Your task to perform on an android device: move a message to another label in the gmail app Image 0: 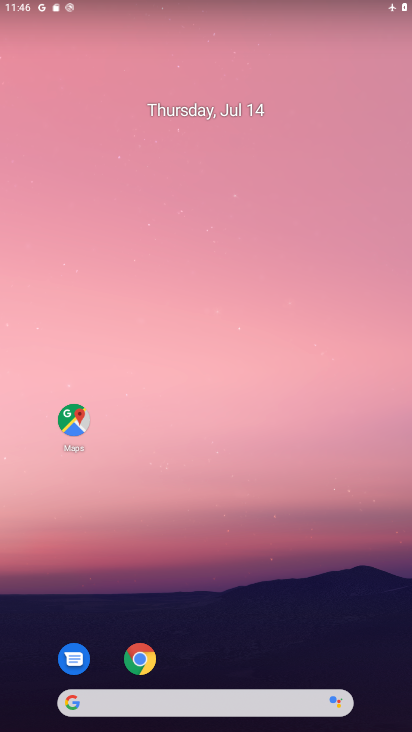
Step 0: drag from (275, 619) to (266, 48)
Your task to perform on an android device: move a message to another label in the gmail app Image 1: 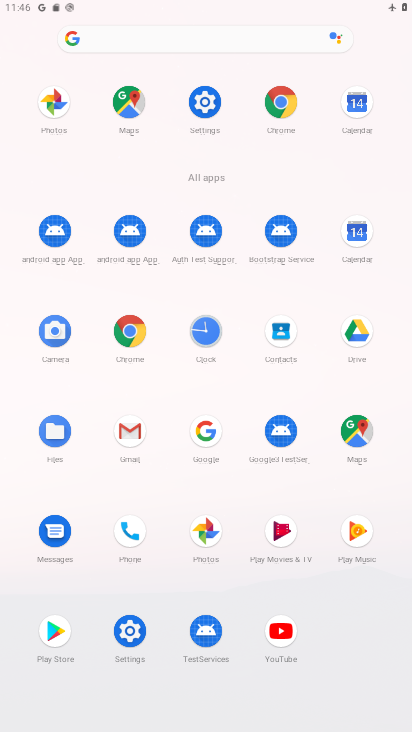
Step 1: click (135, 423)
Your task to perform on an android device: move a message to another label in the gmail app Image 2: 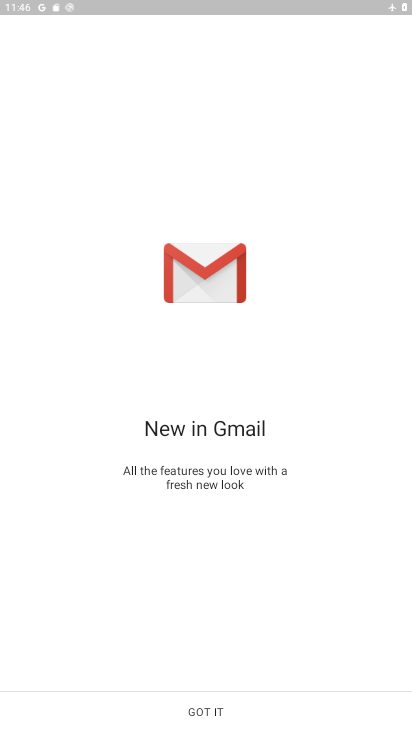
Step 2: click (197, 711)
Your task to perform on an android device: move a message to another label in the gmail app Image 3: 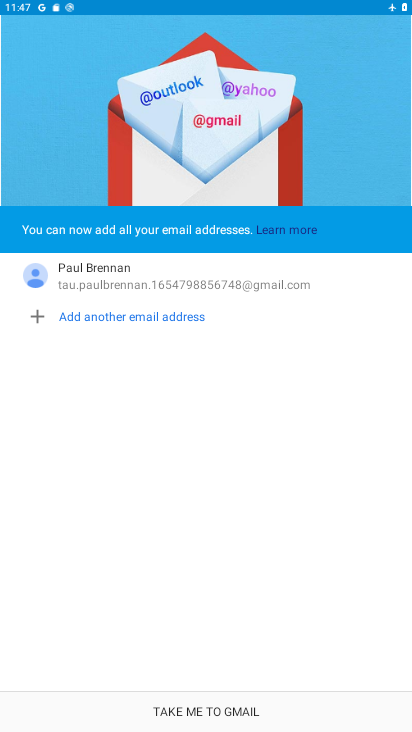
Step 3: click (197, 711)
Your task to perform on an android device: move a message to another label in the gmail app Image 4: 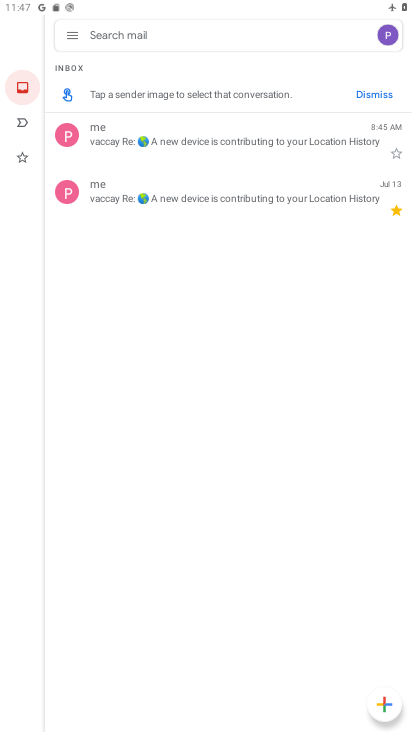
Step 4: click (224, 214)
Your task to perform on an android device: move a message to another label in the gmail app Image 5: 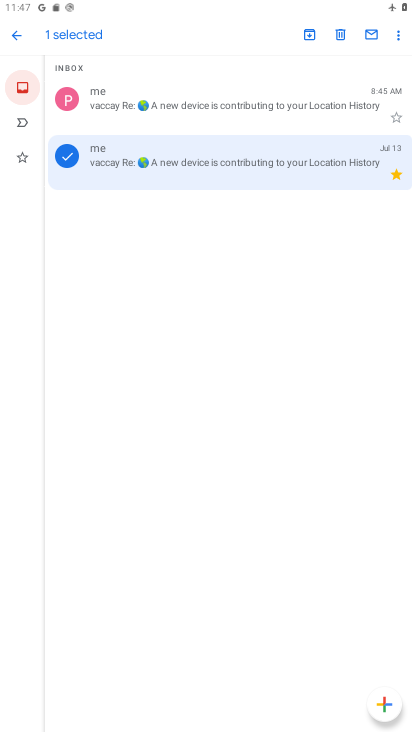
Step 5: click (395, 37)
Your task to perform on an android device: move a message to another label in the gmail app Image 6: 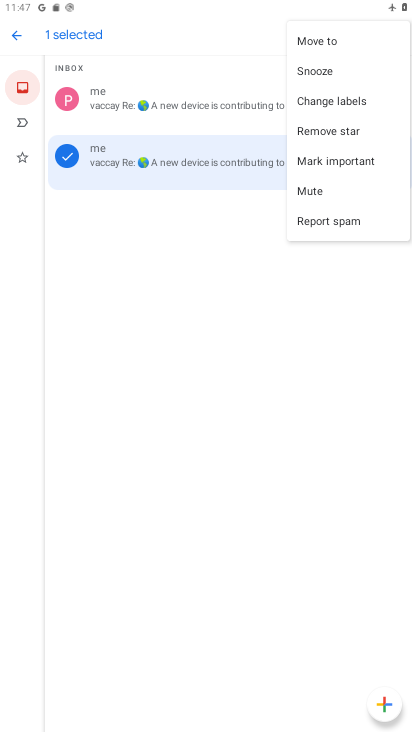
Step 6: click (367, 94)
Your task to perform on an android device: move a message to another label in the gmail app Image 7: 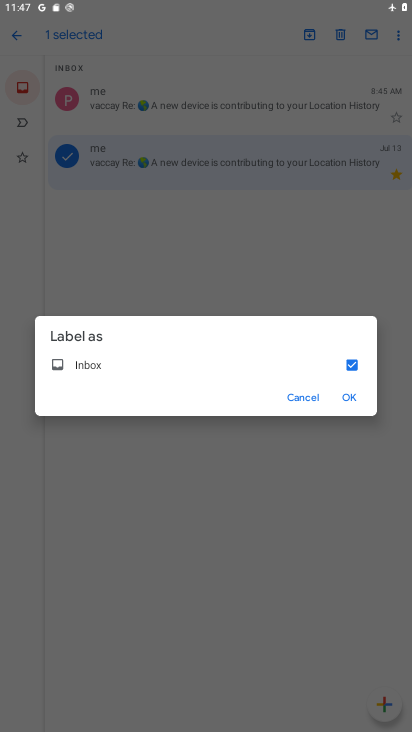
Step 7: click (352, 402)
Your task to perform on an android device: move a message to another label in the gmail app Image 8: 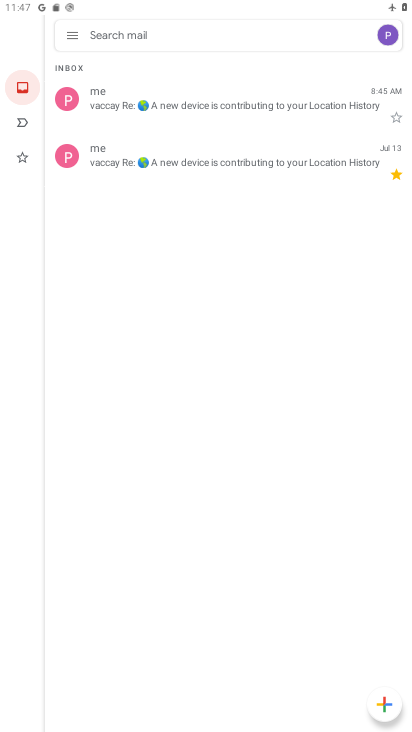
Step 8: task complete